Your task to perform on an android device: change text size in settings app Image 0: 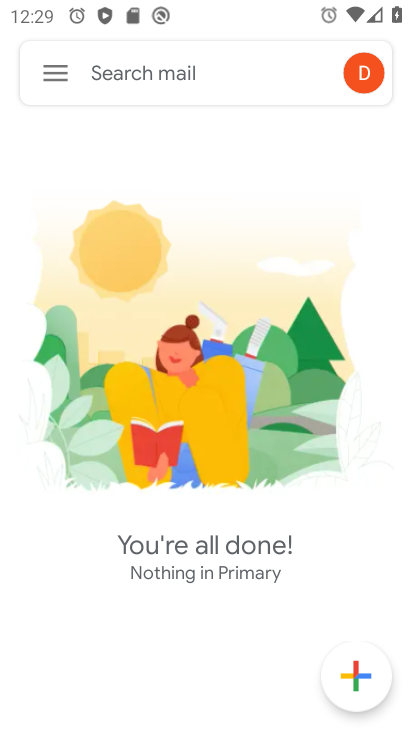
Step 0: press home button
Your task to perform on an android device: change text size in settings app Image 1: 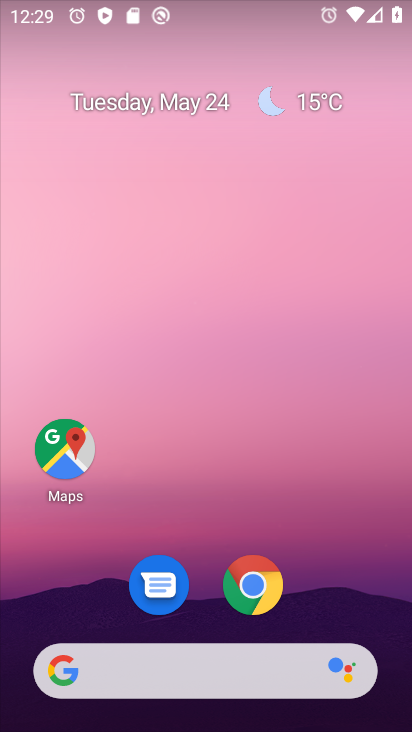
Step 1: drag from (232, 502) to (266, 3)
Your task to perform on an android device: change text size in settings app Image 2: 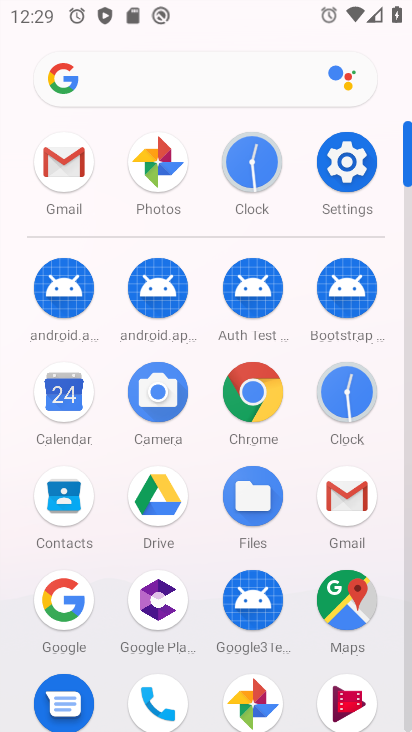
Step 2: click (333, 156)
Your task to perform on an android device: change text size in settings app Image 3: 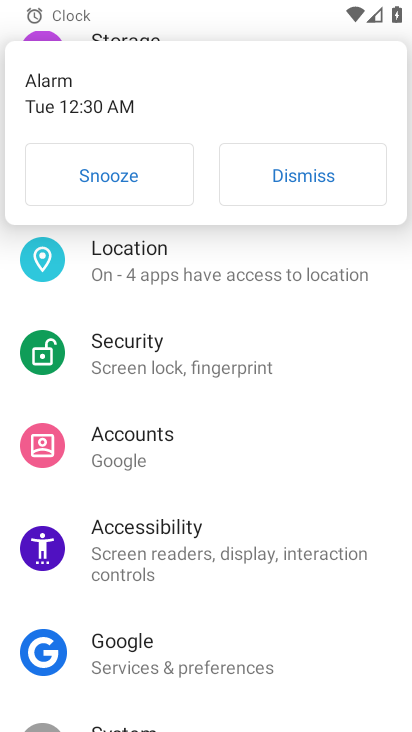
Step 3: click (274, 168)
Your task to perform on an android device: change text size in settings app Image 4: 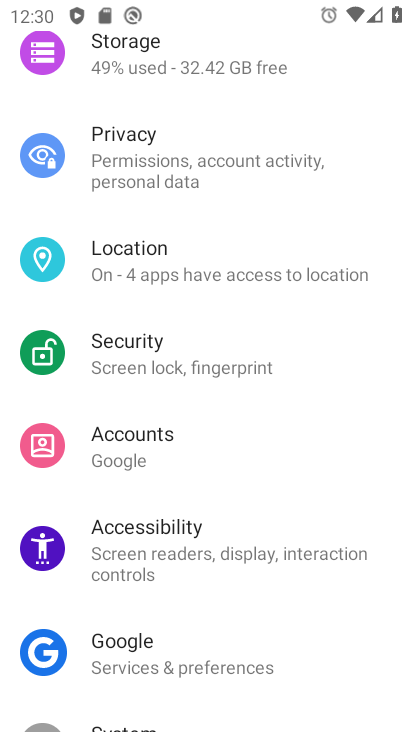
Step 4: drag from (267, 367) to (261, 695)
Your task to perform on an android device: change text size in settings app Image 5: 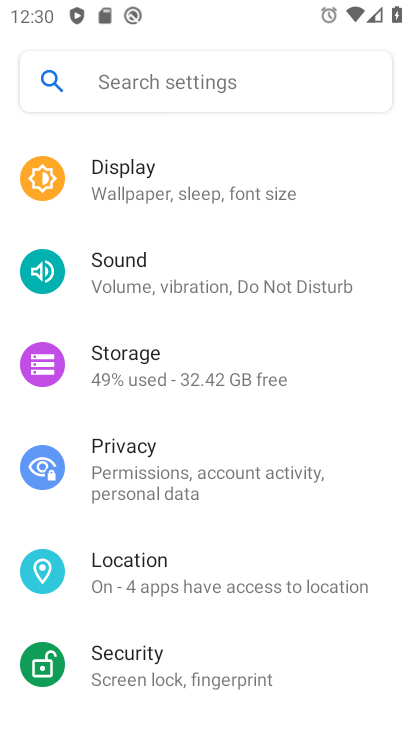
Step 5: click (228, 188)
Your task to perform on an android device: change text size in settings app Image 6: 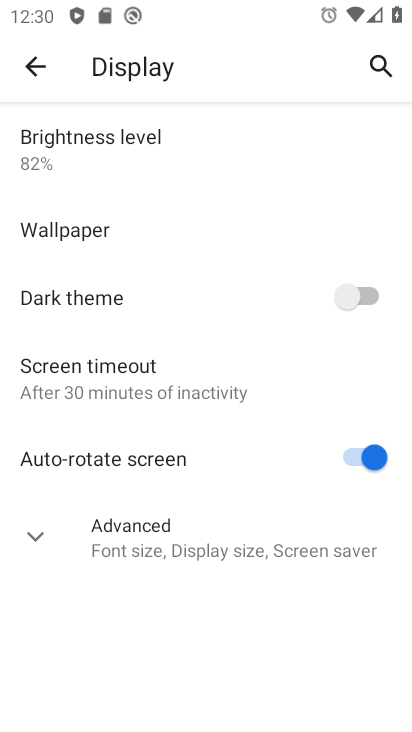
Step 6: click (35, 533)
Your task to perform on an android device: change text size in settings app Image 7: 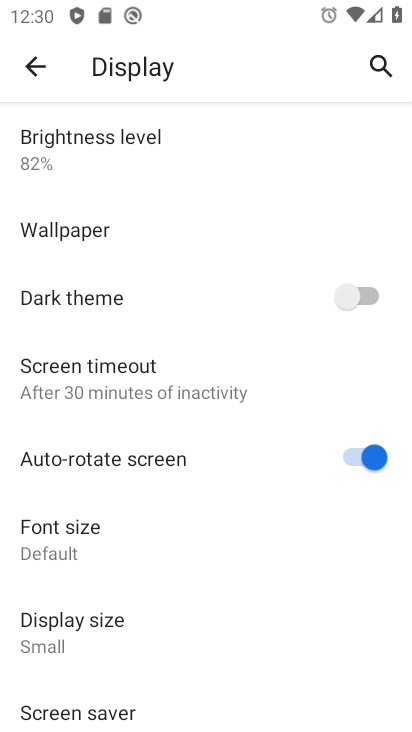
Step 7: click (70, 540)
Your task to perform on an android device: change text size in settings app Image 8: 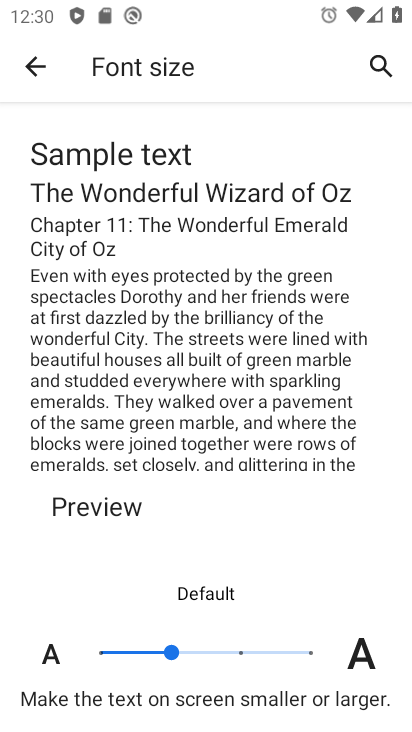
Step 8: click (105, 647)
Your task to perform on an android device: change text size in settings app Image 9: 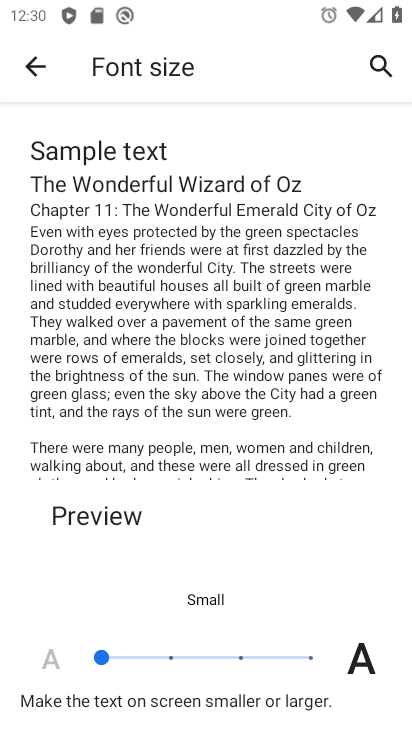
Step 9: click (40, 61)
Your task to perform on an android device: change text size in settings app Image 10: 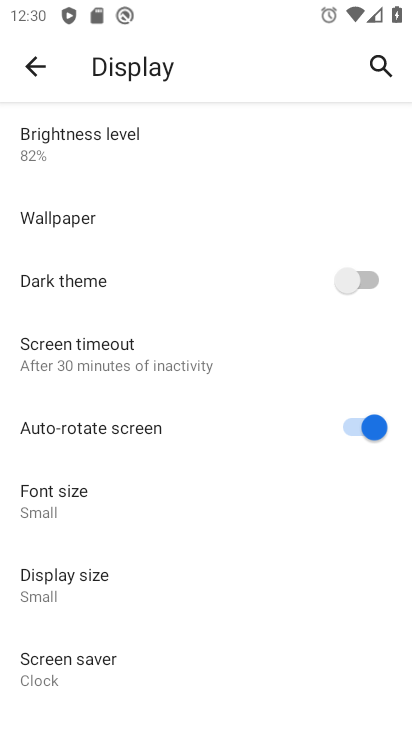
Step 10: task complete